Your task to perform on an android device: see creations saved in the google photos Image 0: 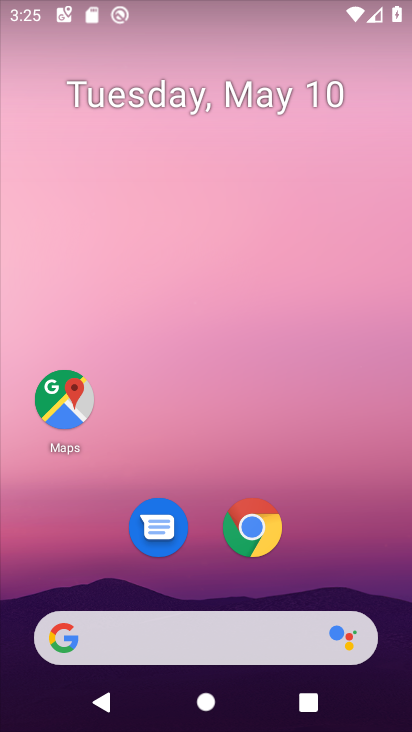
Step 0: drag from (389, 653) to (352, 299)
Your task to perform on an android device: see creations saved in the google photos Image 1: 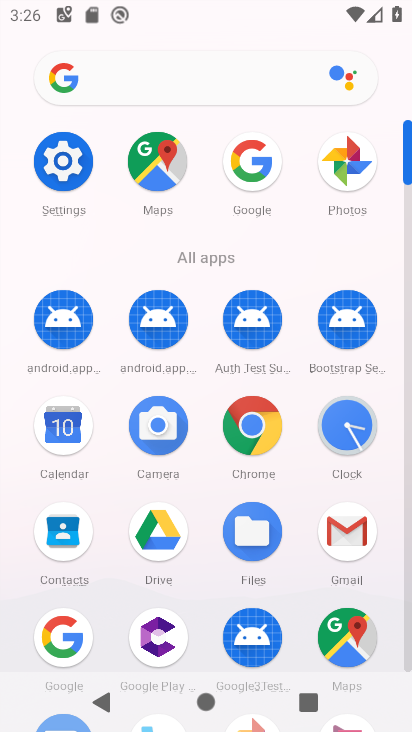
Step 1: click (350, 171)
Your task to perform on an android device: see creations saved in the google photos Image 2: 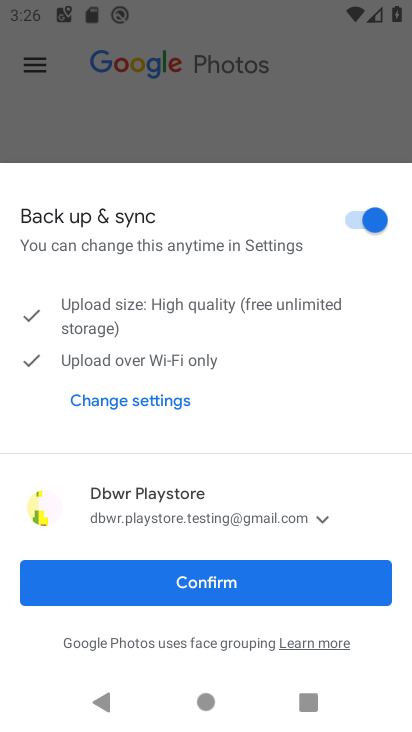
Step 2: click (198, 583)
Your task to perform on an android device: see creations saved in the google photos Image 3: 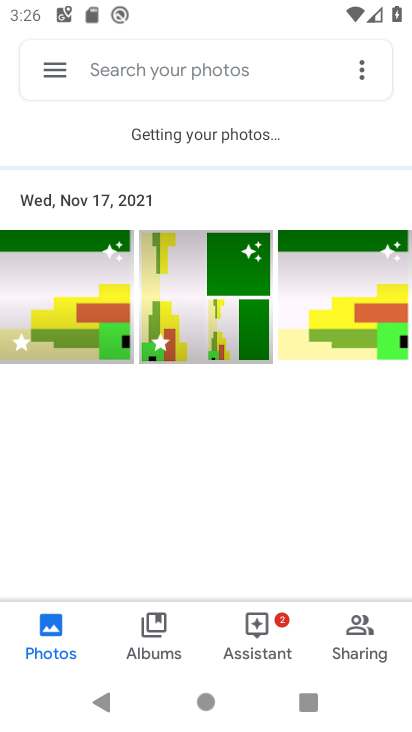
Step 3: click (67, 293)
Your task to perform on an android device: see creations saved in the google photos Image 4: 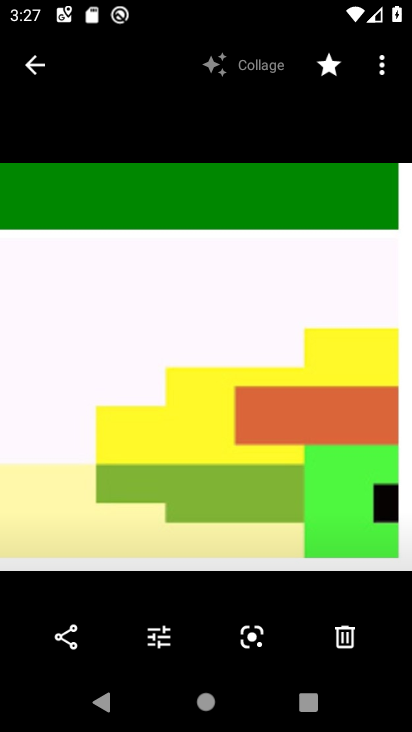
Step 4: click (34, 76)
Your task to perform on an android device: see creations saved in the google photos Image 5: 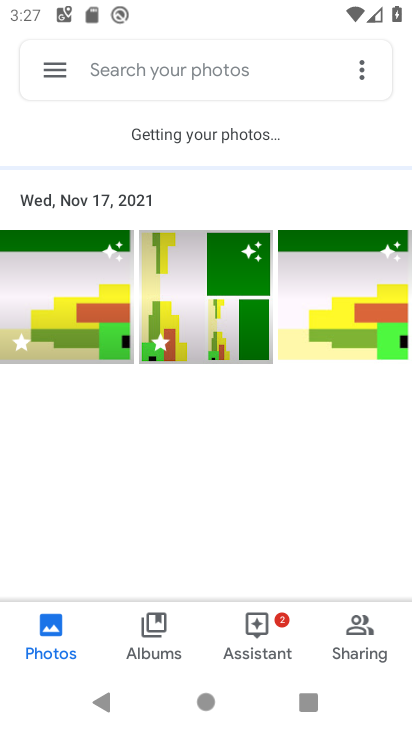
Step 5: click (185, 314)
Your task to perform on an android device: see creations saved in the google photos Image 6: 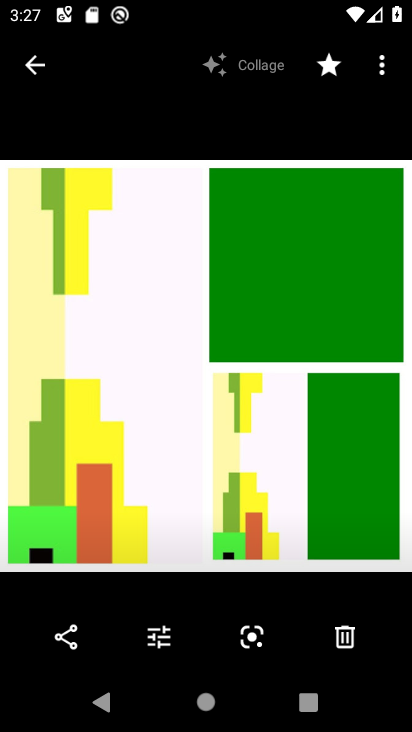
Step 6: click (38, 57)
Your task to perform on an android device: see creations saved in the google photos Image 7: 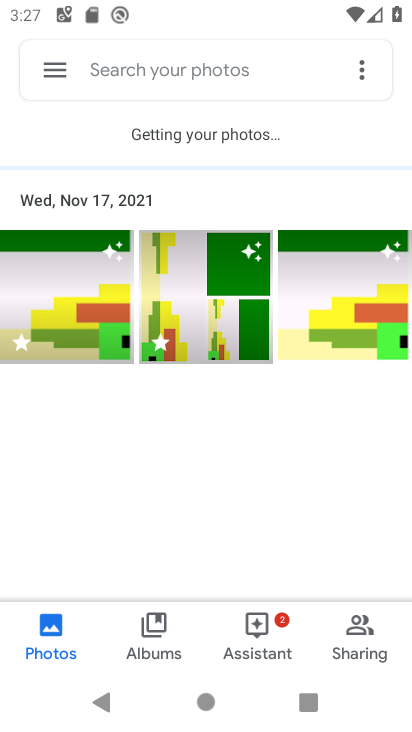
Step 7: click (339, 281)
Your task to perform on an android device: see creations saved in the google photos Image 8: 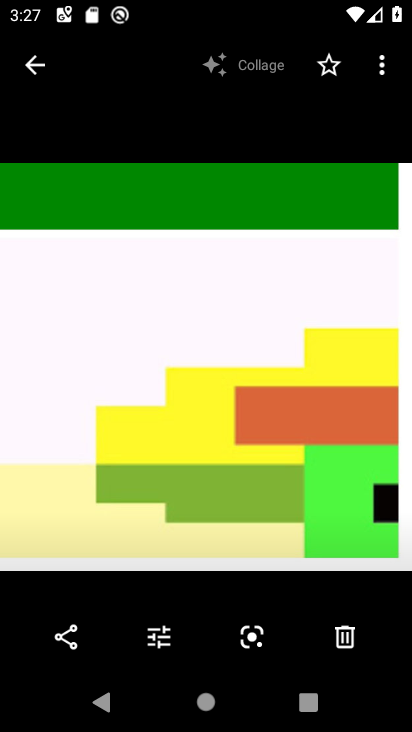
Step 8: click (38, 67)
Your task to perform on an android device: see creations saved in the google photos Image 9: 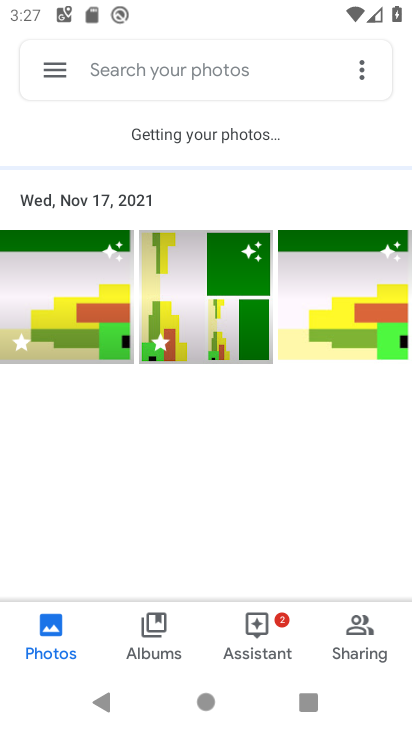
Step 9: task complete